Your task to perform on an android device: Show the shopping cart on ebay.com. Add razer kraken to the cart on ebay.com, then select checkout. Image 0: 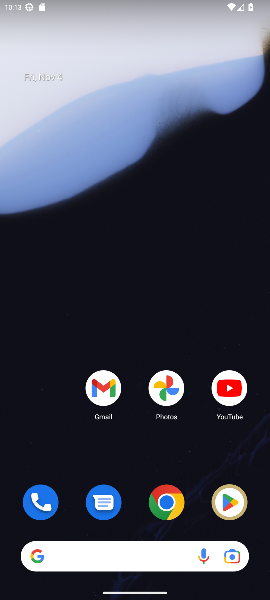
Step 0: click (158, 508)
Your task to perform on an android device: Show the shopping cart on ebay.com. Add razer kraken to the cart on ebay.com, then select checkout. Image 1: 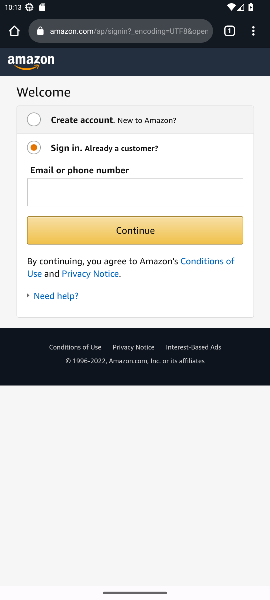
Step 1: click (194, 36)
Your task to perform on an android device: Show the shopping cart on ebay.com. Add razer kraken to the cart on ebay.com, then select checkout. Image 2: 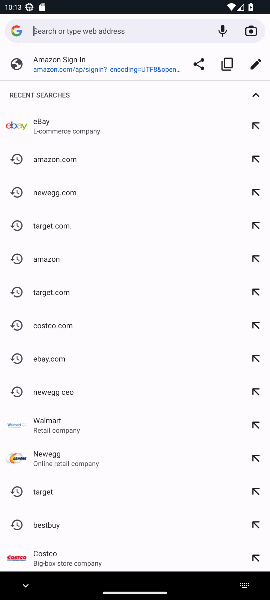
Step 2: type "ebay.com"
Your task to perform on an android device: Show the shopping cart on ebay.com. Add razer kraken to the cart on ebay.com, then select checkout. Image 3: 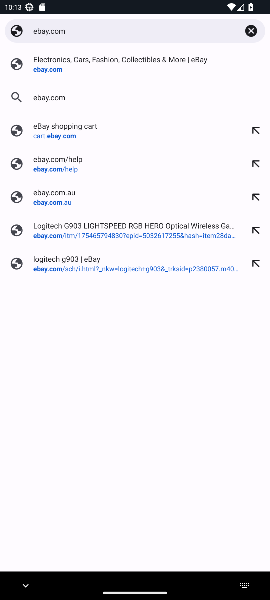
Step 3: click (63, 94)
Your task to perform on an android device: Show the shopping cart on ebay.com. Add razer kraken to the cart on ebay.com, then select checkout. Image 4: 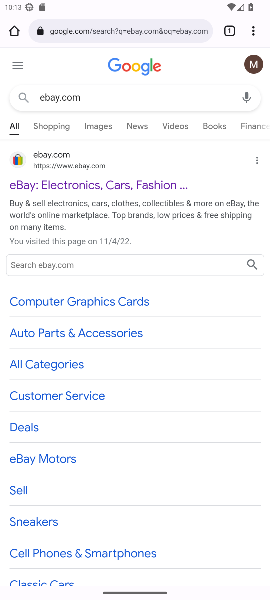
Step 4: click (80, 181)
Your task to perform on an android device: Show the shopping cart on ebay.com. Add razer kraken to the cart on ebay.com, then select checkout. Image 5: 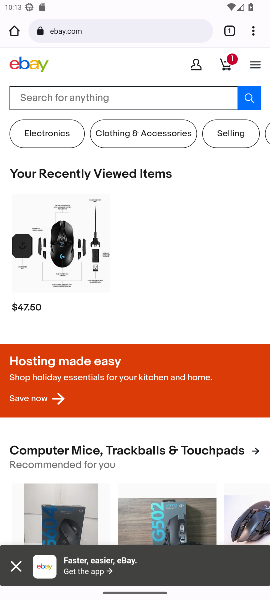
Step 5: click (226, 66)
Your task to perform on an android device: Show the shopping cart on ebay.com. Add razer kraken to the cart on ebay.com, then select checkout. Image 6: 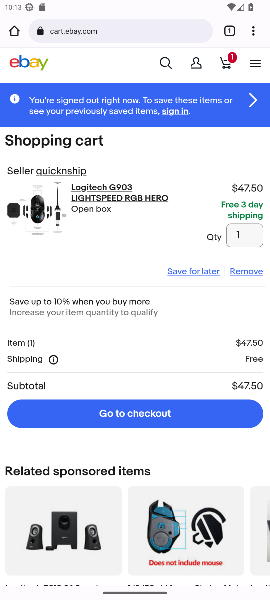
Step 6: click (158, 61)
Your task to perform on an android device: Show the shopping cart on ebay.com. Add razer kraken to the cart on ebay.com, then select checkout. Image 7: 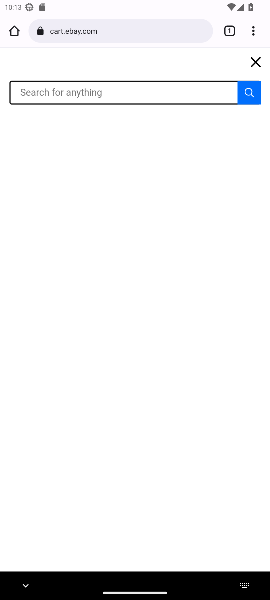
Step 7: type "razer kraken"
Your task to perform on an android device: Show the shopping cart on ebay.com. Add razer kraken to the cart on ebay.com, then select checkout. Image 8: 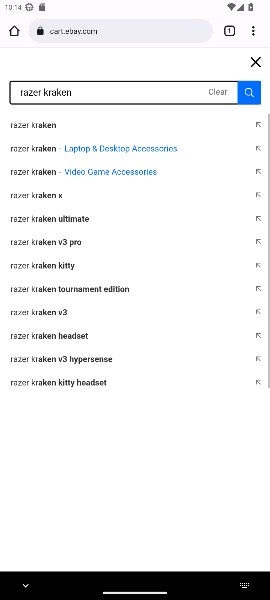
Step 8: click (31, 121)
Your task to perform on an android device: Show the shopping cart on ebay.com. Add razer kraken to the cart on ebay.com, then select checkout. Image 9: 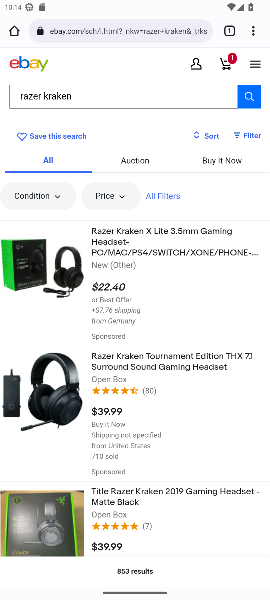
Step 9: click (39, 257)
Your task to perform on an android device: Show the shopping cart on ebay.com. Add razer kraken to the cart on ebay.com, then select checkout. Image 10: 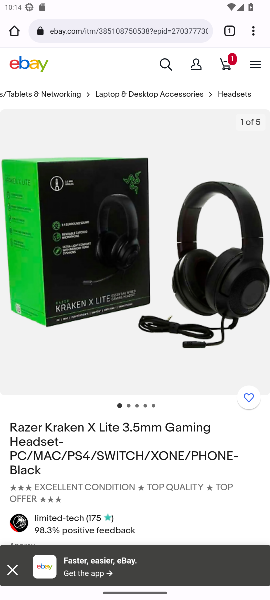
Step 10: drag from (202, 519) to (113, 219)
Your task to perform on an android device: Show the shopping cart on ebay.com. Add razer kraken to the cart on ebay.com, then select checkout. Image 11: 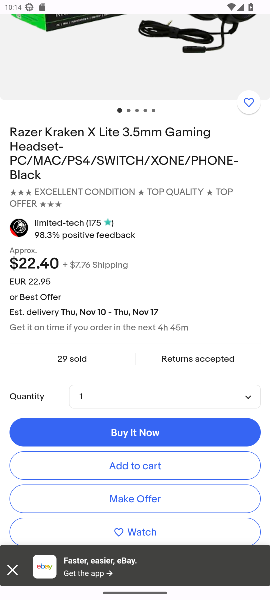
Step 11: click (140, 463)
Your task to perform on an android device: Show the shopping cart on ebay.com. Add razer kraken to the cart on ebay.com, then select checkout. Image 12: 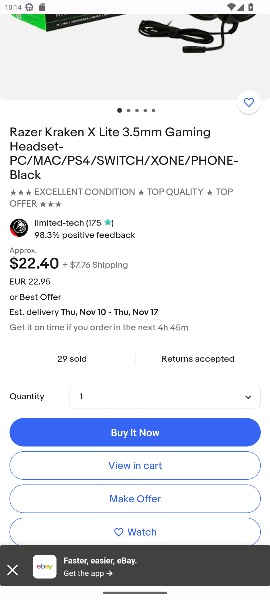
Step 12: click (140, 463)
Your task to perform on an android device: Show the shopping cart on ebay.com. Add razer kraken to the cart on ebay.com, then select checkout. Image 13: 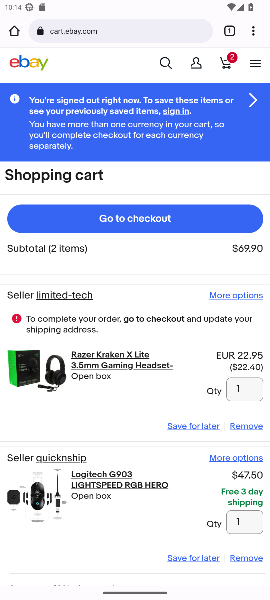
Step 13: click (134, 220)
Your task to perform on an android device: Show the shopping cart on ebay.com. Add razer kraken to the cart on ebay.com, then select checkout. Image 14: 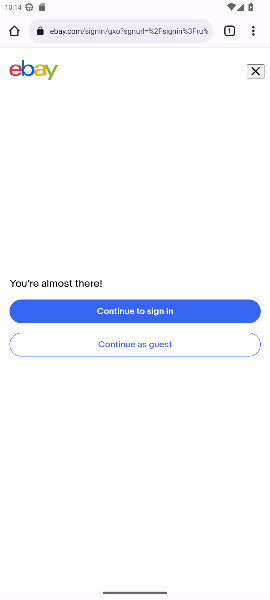
Step 14: task complete